Your task to perform on an android device: Go to privacy settings Image 0: 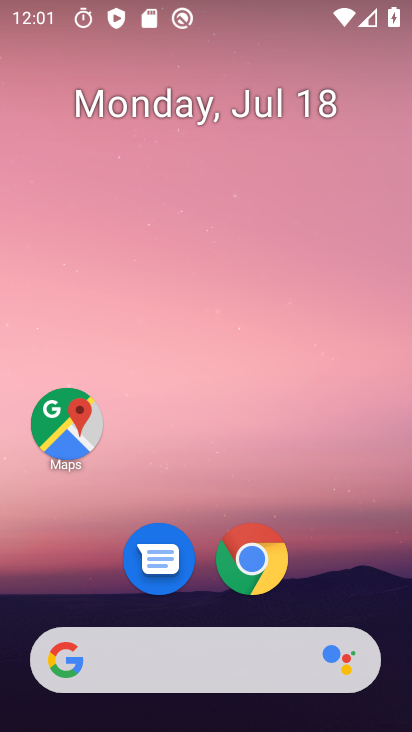
Step 0: drag from (125, 602) to (213, 80)
Your task to perform on an android device: Go to privacy settings Image 1: 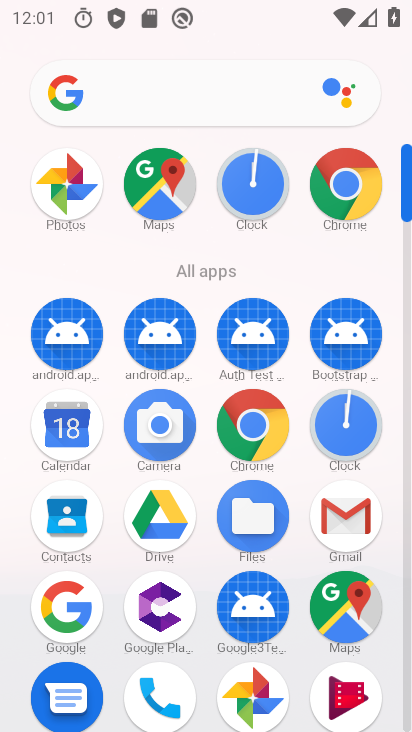
Step 1: drag from (175, 619) to (239, 23)
Your task to perform on an android device: Go to privacy settings Image 2: 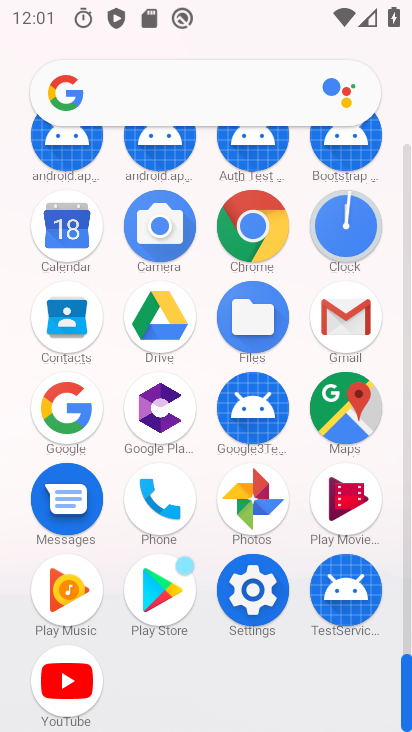
Step 2: click (266, 609)
Your task to perform on an android device: Go to privacy settings Image 3: 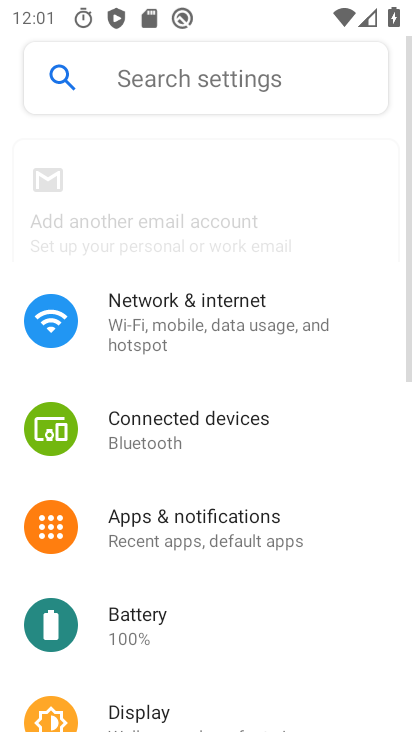
Step 3: drag from (224, 644) to (278, 56)
Your task to perform on an android device: Go to privacy settings Image 4: 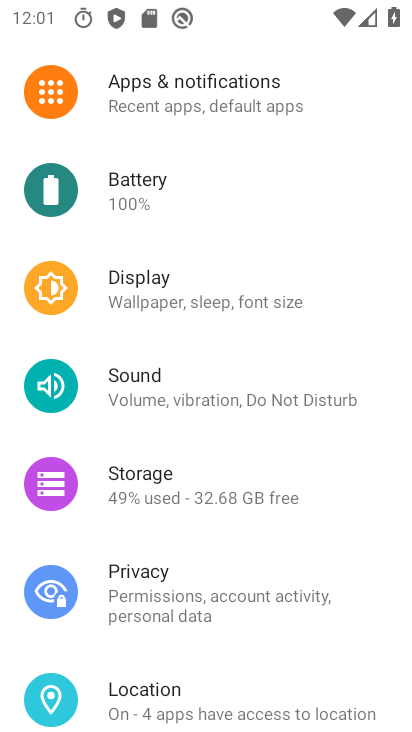
Step 4: click (139, 578)
Your task to perform on an android device: Go to privacy settings Image 5: 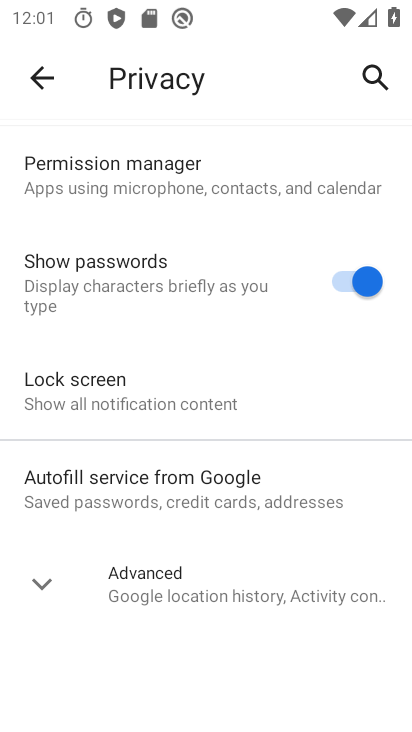
Step 5: task complete